Your task to perform on an android device: open app "Roku - Official Remote Control" (install if not already installed) Image 0: 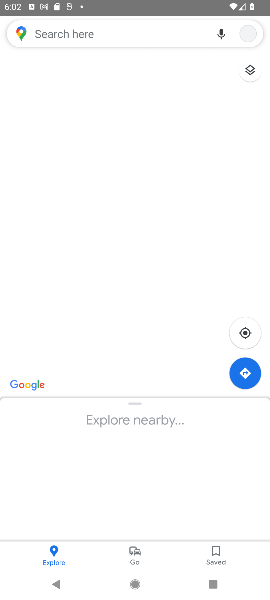
Step 0: press home button
Your task to perform on an android device: open app "Roku - Official Remote Control" (install if not already installed) Image 1: 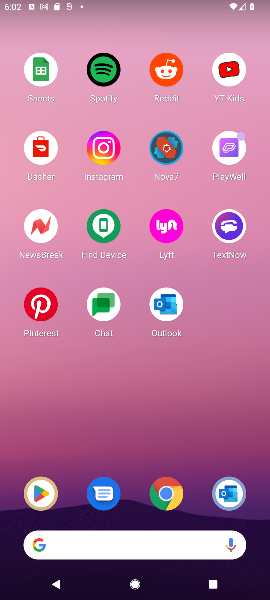
Step 1: drag from (150, 561) to (148, 197)
Your task to perform on an android device: open app "Roku - Official Remote Control" (install if not already installed) Image 2: 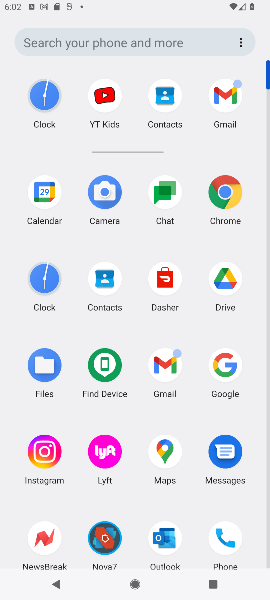
Step 2: drag from (141, 508) to (139, 205)
Your task to perform on an android device: open app "Roku - Official Remote Control" (install if not already installed) Image 3: 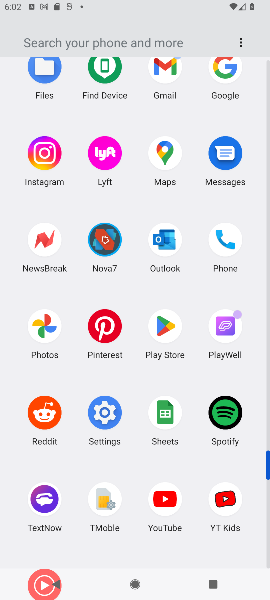
Step 3: click (163, 321)
Your task to perform on an android device: open app "Roku - Official Remote Control" (install if not already installed) Image 4: 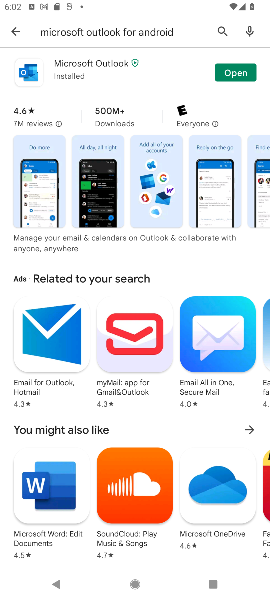
Step 4: click (222, 29)
Your task to perform on an android device: open app "Roku - Official Remote Control" (install if not already installed) Image 5: 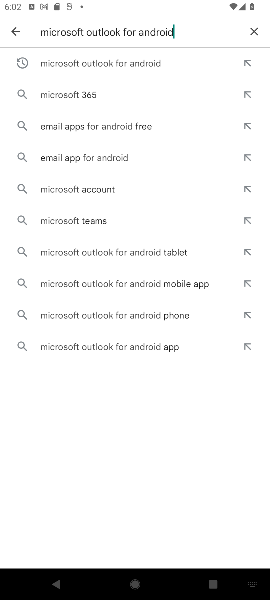
Step 5: click (252, 29)
Your task to perform on an android device: open app "Roku - Official Remote Control" (install if not already installed) Image 6: 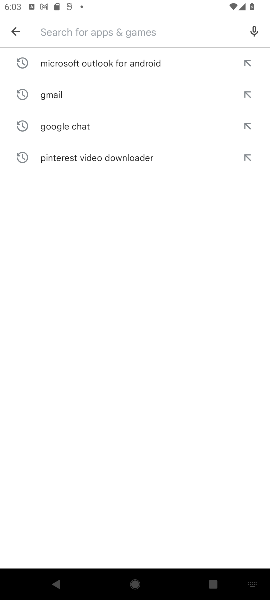
Step 6: type "Official Remote Control"
Your task to perform on an android device: open app "Roku - Official Remote Control" (install if not already installed) Image 7: 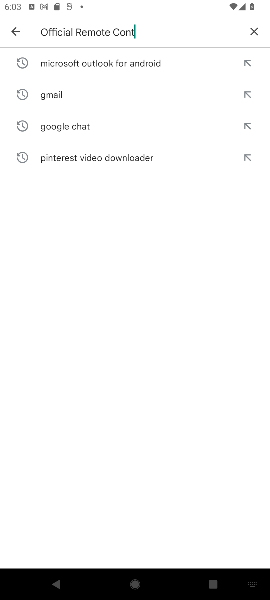
Step 7: type ""
Your task to perform on an android device: open app "Roku - Official Remote Control" (install if not already installed) Image 8: 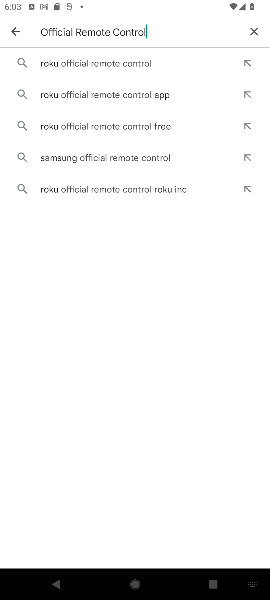
Step 8: click (127, 62)
Your task to perform on an android device: open app "Roku - Official Remote Control" (install if not already installed) Image 9: 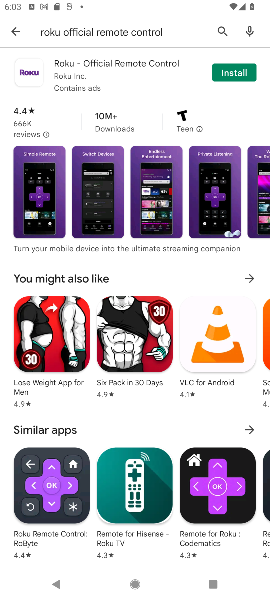
Step 9: click (233, 70)
Your task to perform on an android device: open app "Roku - Official Remote Control" (install if not already installed) Image 10: 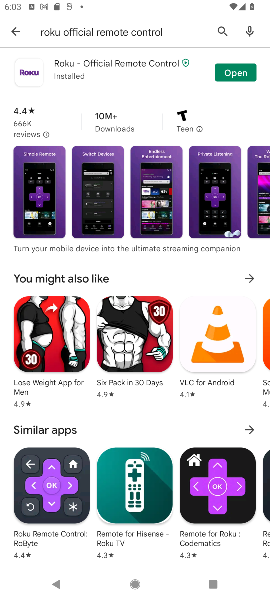
Step 10: task complete